Your task to perform on an android device: toggle notification dots Image 0: 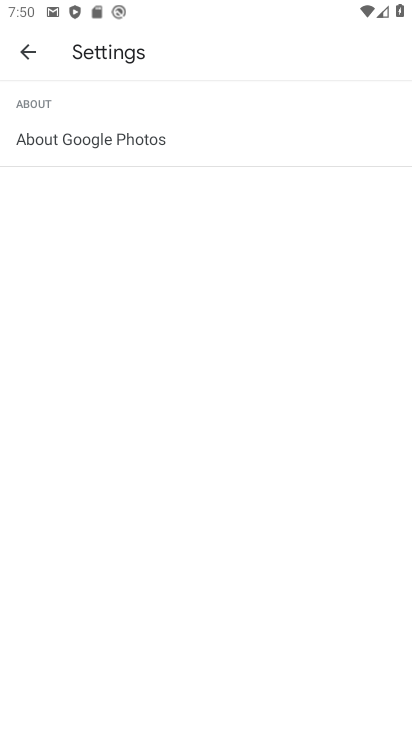
Step 0: press home button
Your task to perform on an android device: toggle notification dots Image 1: 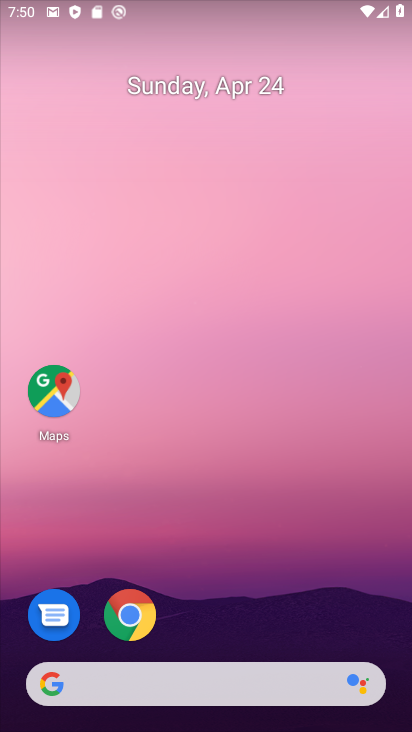
Step 1: drag from (309, 505) to (332, 1)
Your task to perform on an android device: toggle notification dots Image 2: 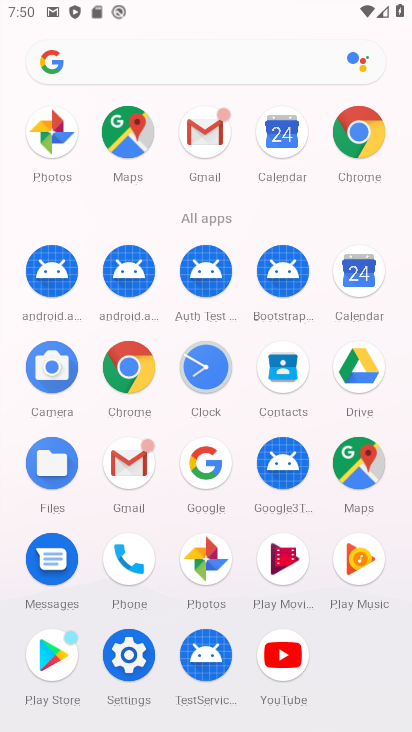
Step 2: drag from (272, 513) to (311, 156)
Your task to perform on an android device: toggle notification dots Image 3: 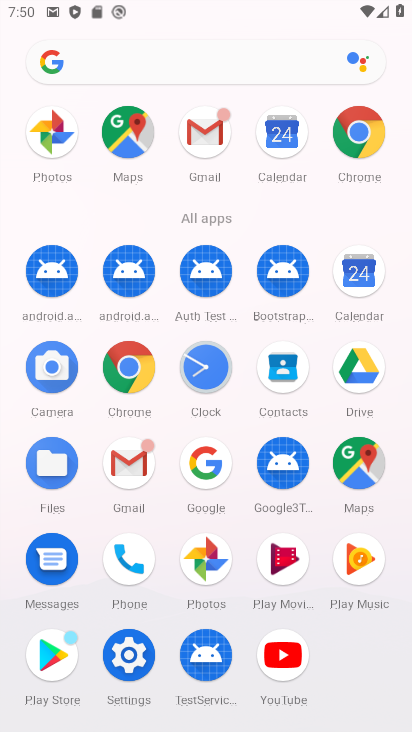
Step 3: click (124, 641)
Your task to perform on an android device: toggle notification dots Image 4: 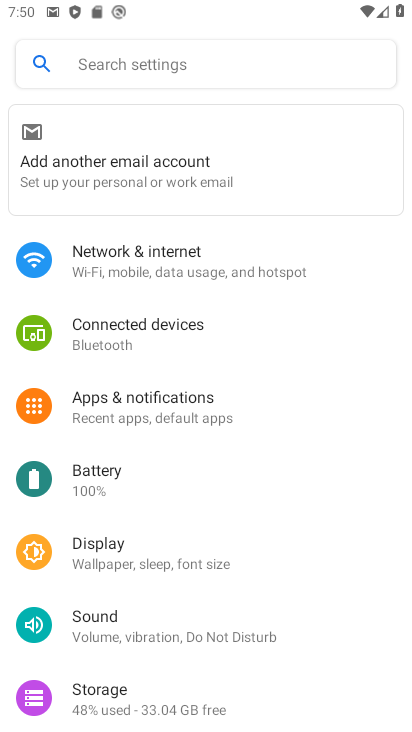
Step 4: click (211, 413)
Your task to perform on an android device: toggle notification dots Image 5: 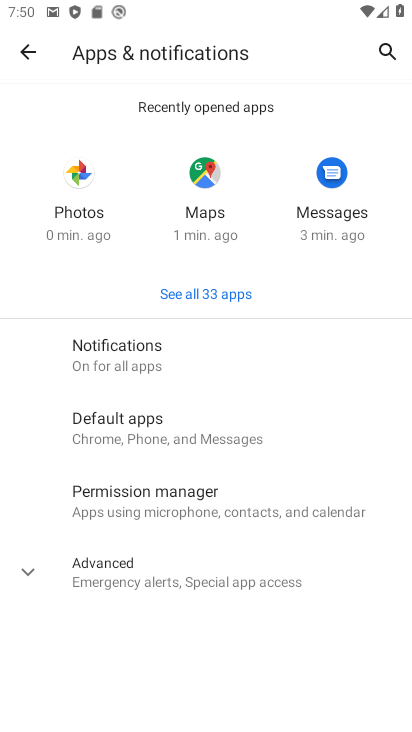
Step 5: click (165, 340)
Your task to perform on an android device: toggle notification dots Image 6: 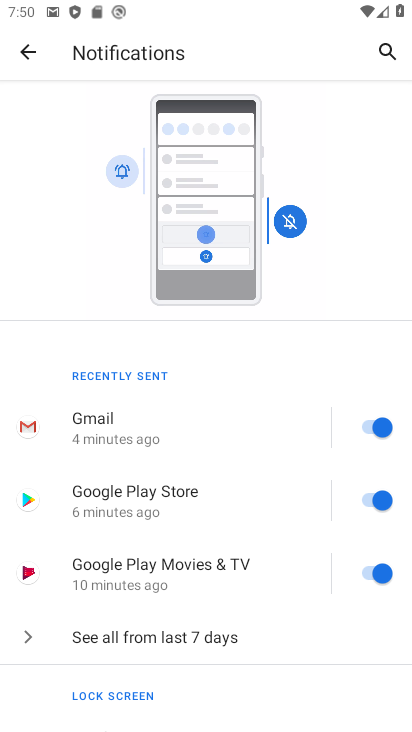
Step 6: drag from (216, 569) to (218, 30)
Your task to perform on an android device: toggle notification dots Image 7: 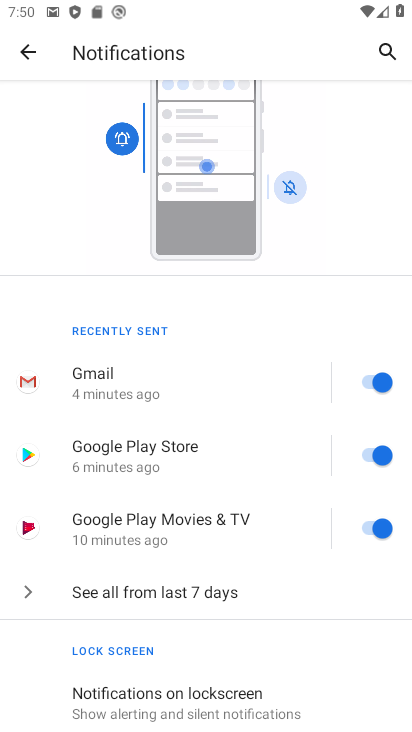
Step 7: drag from (158, 580) to (192, 182)
Your task to perform on an android device: toggle notification dots Image 8: 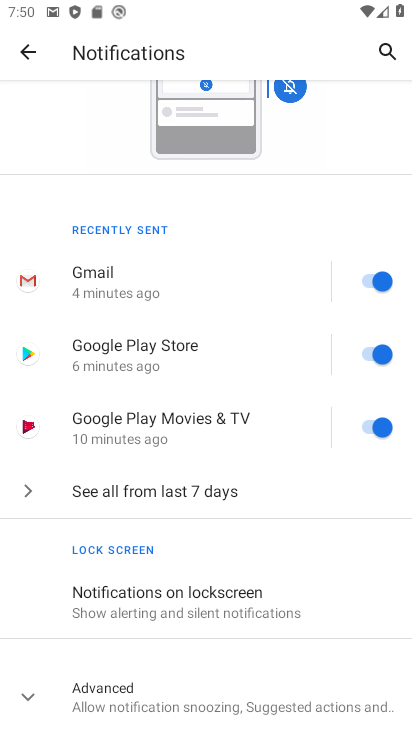
Step 8: click (180, 703)
Your task to perform on an android device: toggle notification dots Image 9: 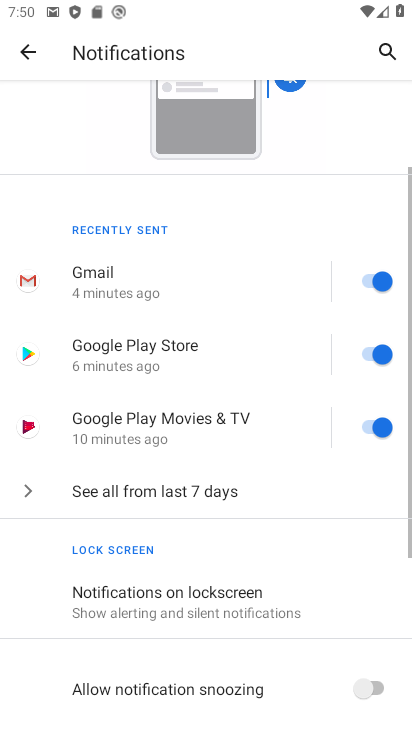
Step 9: drag from (178, 688) to (251, 195)
Your task to perform on an android device: toggle notification dots Image 10: 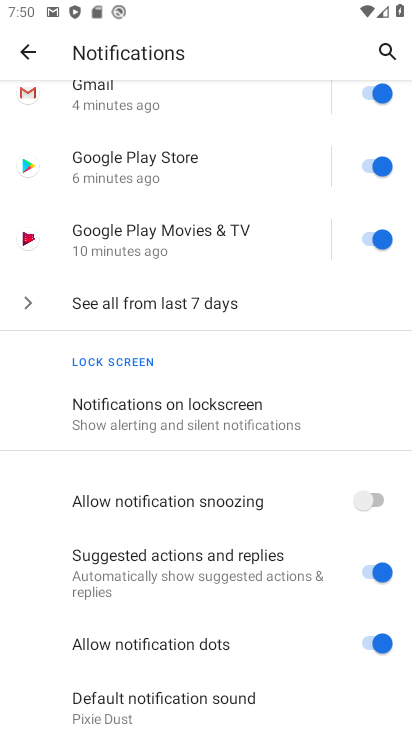
Step 10: click (367, 645)
Your task to perform on an android device: toggle notification dots Image 11: 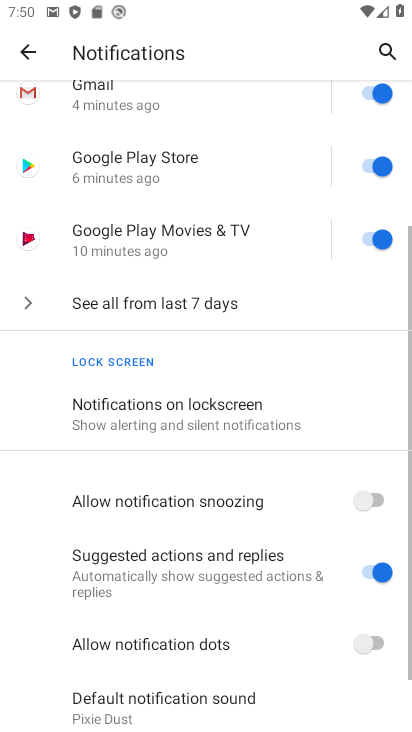
Step 11: task complete